Your task to perform on an android device: Open network settings Image 0: 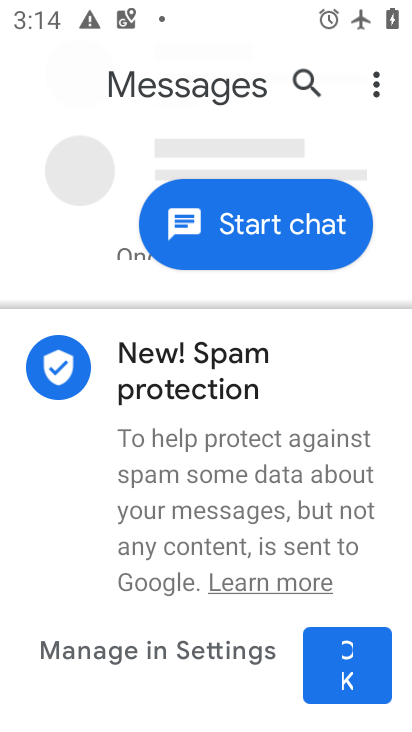
Step 0: drag from (368, 564) to (320, 17)
Your task to perform on an android device: Open network settings Image 1: 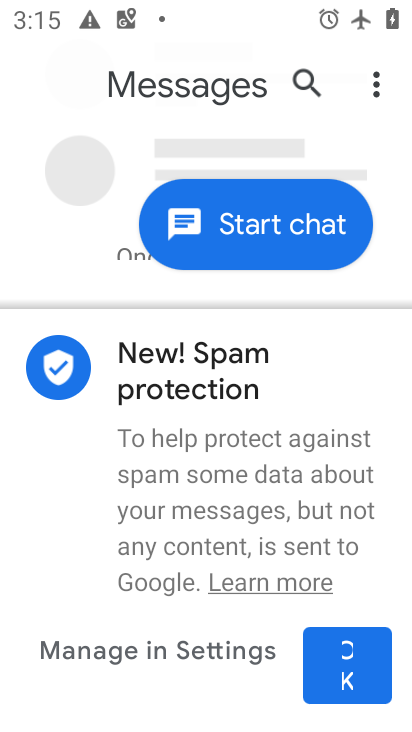
Step 1: press home button
Your task to perform on an android device: Open network settings Image 2: 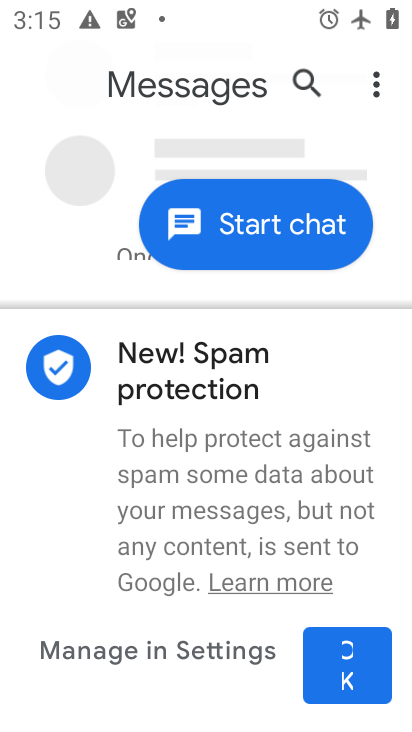
Step 2: press home button
Your task to perform on an android device: Open network settings Image 3: 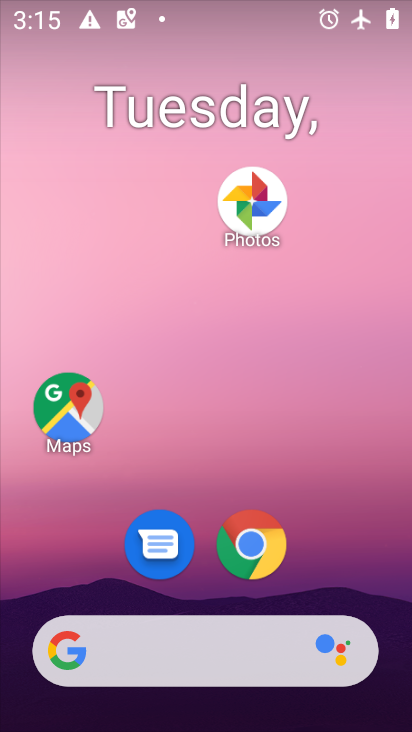
Step 3: drag from (361, 526) to (394, 92)
Your task to perform on an android device: Open network settings Image 4: 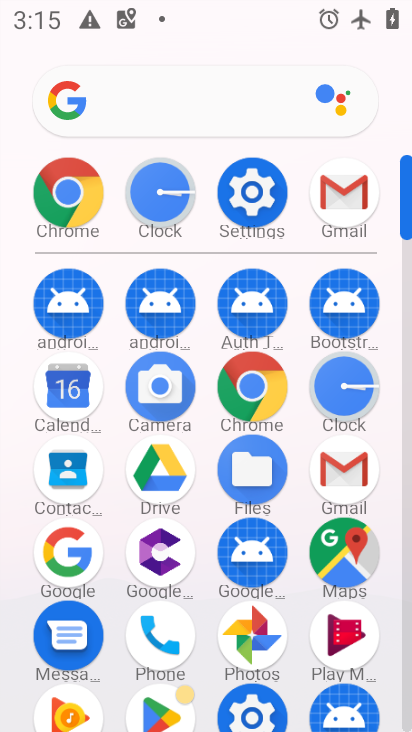
Step 4: click (249, 708)
Your task to perform on an android device: Open network settings Image 5: 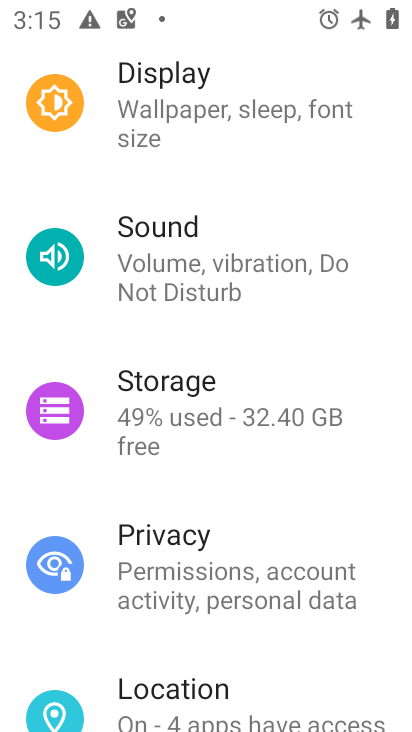
Step 5: drag from (252, 550) to (245, 85)
Your task to perform on an android device: Open network settings Image 6: 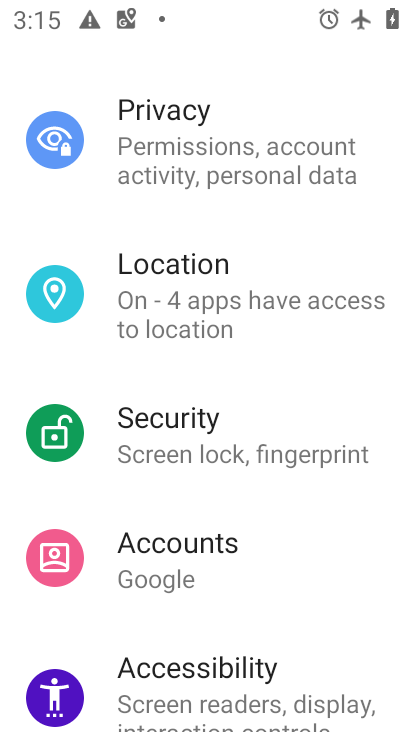
Step 6: drag from (265, 581) to (293, 120)
Your task to perform on an android device: Open network settings Image 7: 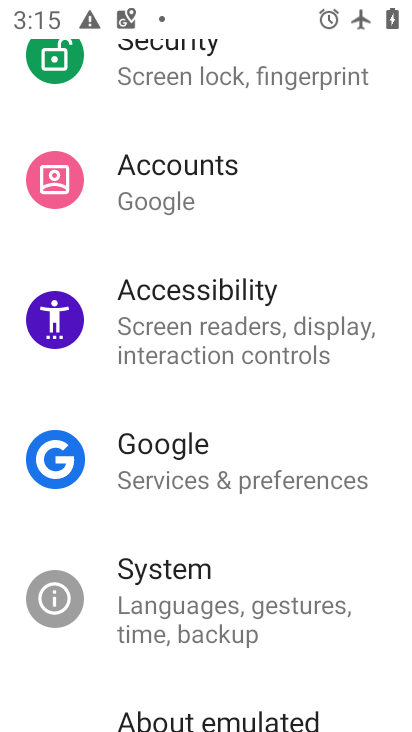
Step 7: drag from (257, 571) to (319, 139)
Your task to perform on an android device: Open network settings Image 8: 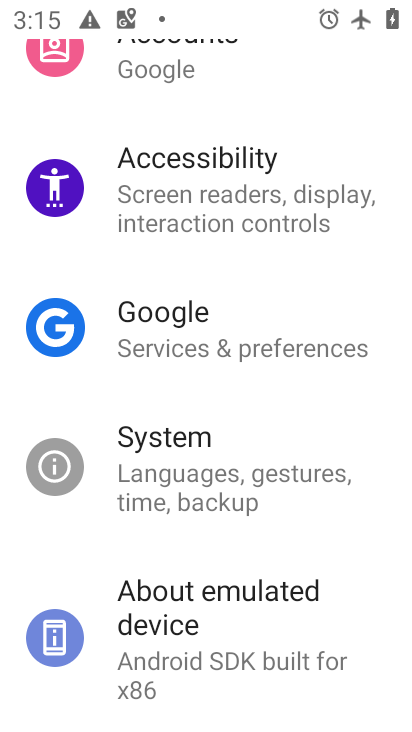
Step 8: drag from (286, 195) to (308, 697)
Your task to perform on an android device: Open network settings Image 9: 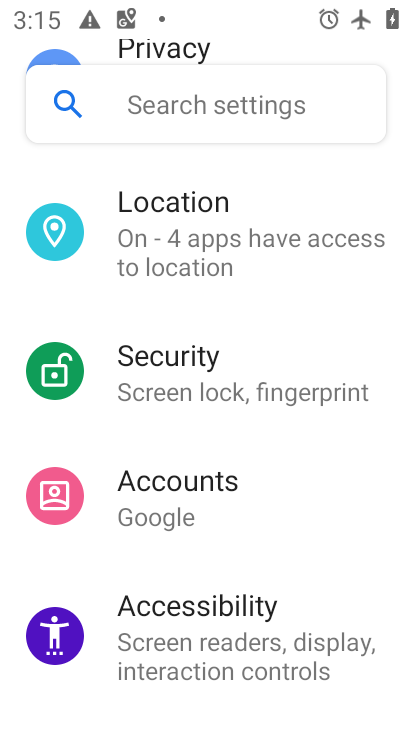
Step 9: drag from (244, 203) to (289, 652)
Your task to perform on an android device: Open network settings Image 10: 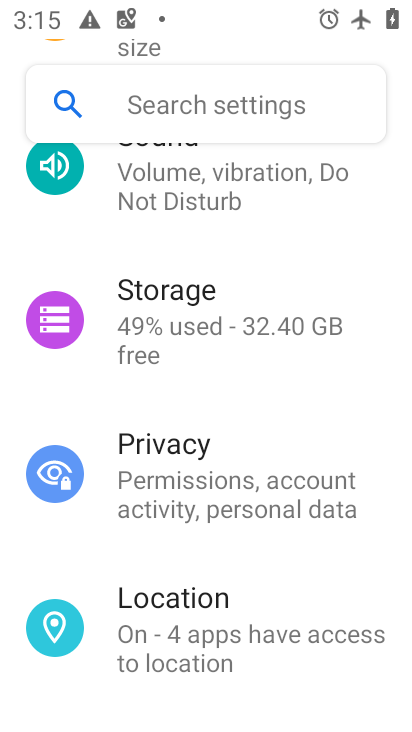
Step 10: drag from (288, 216) to (281, 660)
Your task to perform on an android device: Open network settings Image 11: 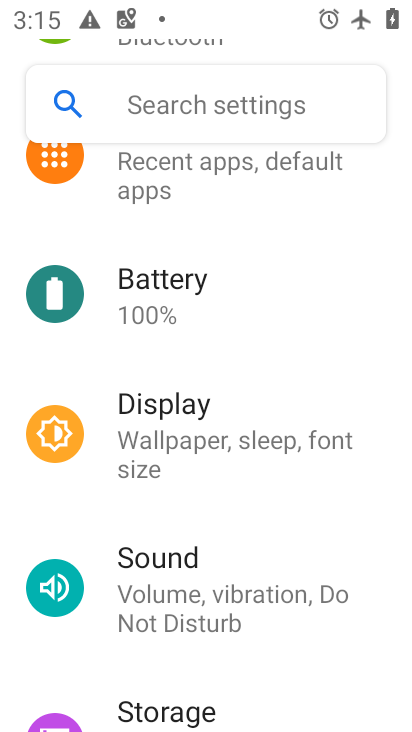
Step 11: drag from (221, 176) to (226, 710)
Your task to perform on an android device: Open network settings Image 12: 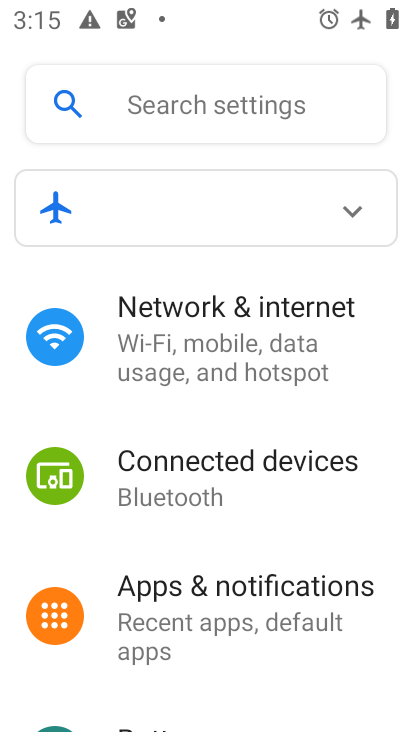
Step 12: click (207, 326)
Your task to perform on an android device: Open network settings Image 13: 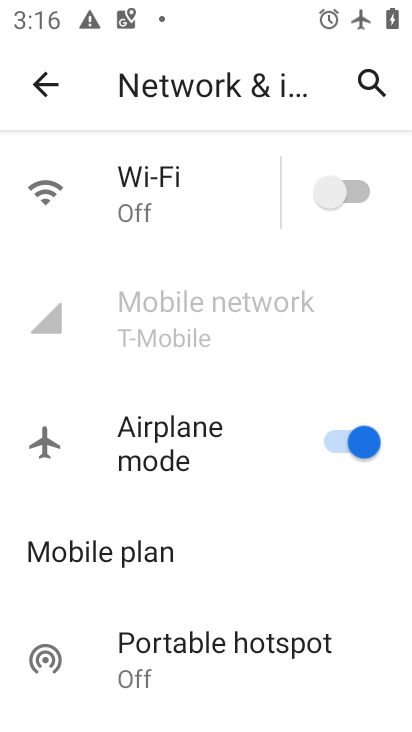
Step 13: task complete